Your task to perform on an android device: Open Chrome and go to the settings page Image 0: 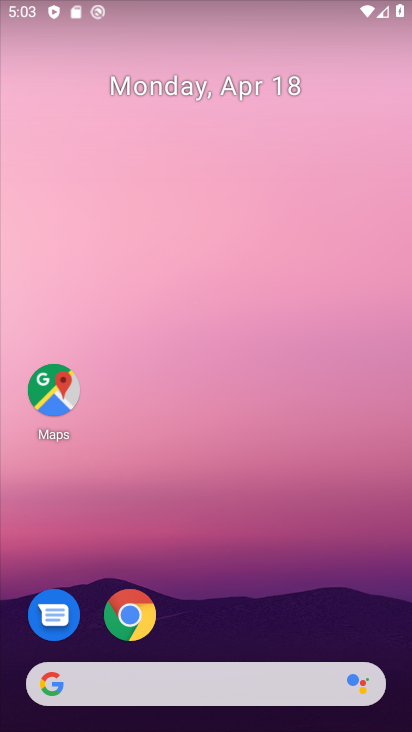
Step 0: drag from (236, 601) to (237, 199)
Your task to perform on an android device: Open Chrome and go to the settings page Image 1: 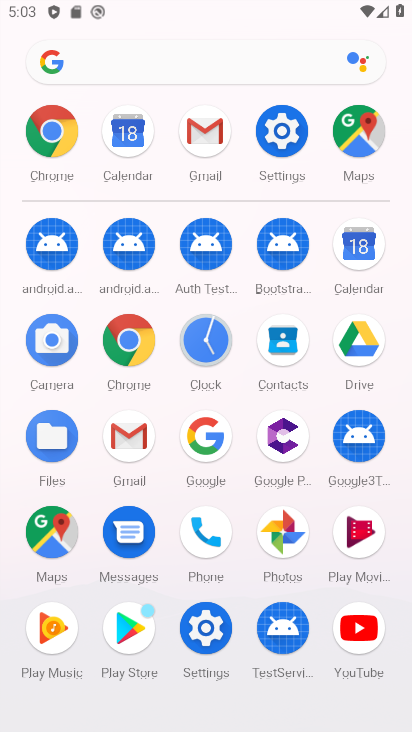
Step 1: click (39, 145)
Your task to perform on an android device: Open Chrome and go to the settings page Image 2: 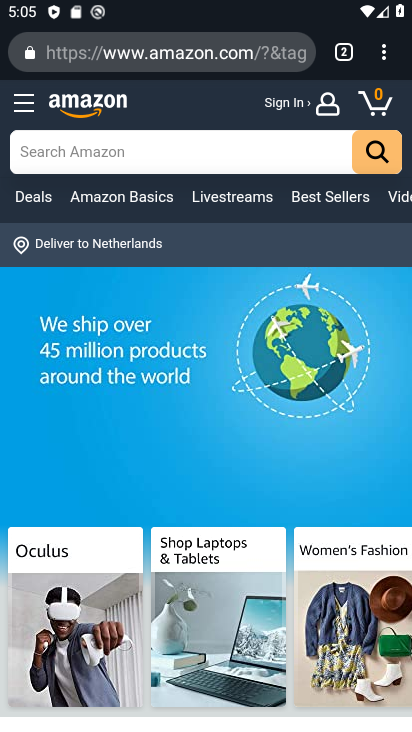
Step 2: task complete